Your task to perform on an android device: toggle improve location accuracy Image 0: 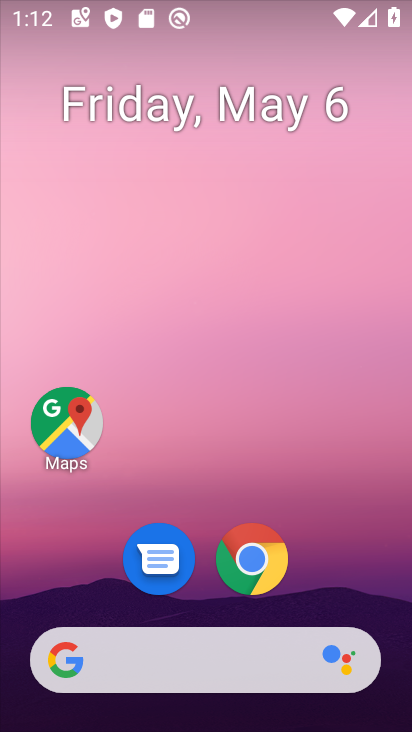
Step 0: drag from (200, 644) to (324, 123)
Your task to perform on an android device: toggle improve location accuracy Image 1: 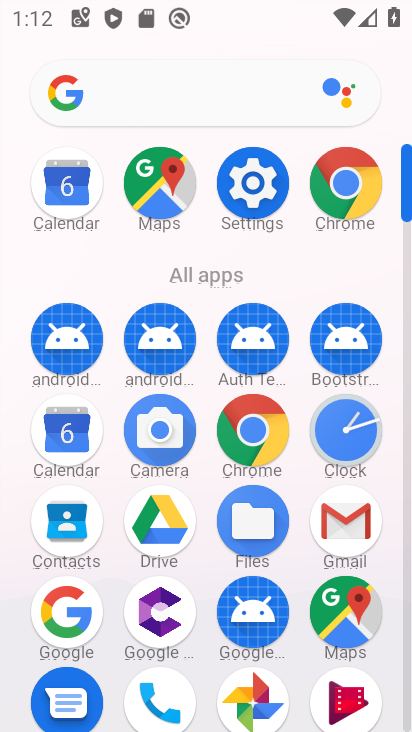
Step 1: click (256, 192)
Your task to perform on an android device: toggle improve location accuracy Image 2: 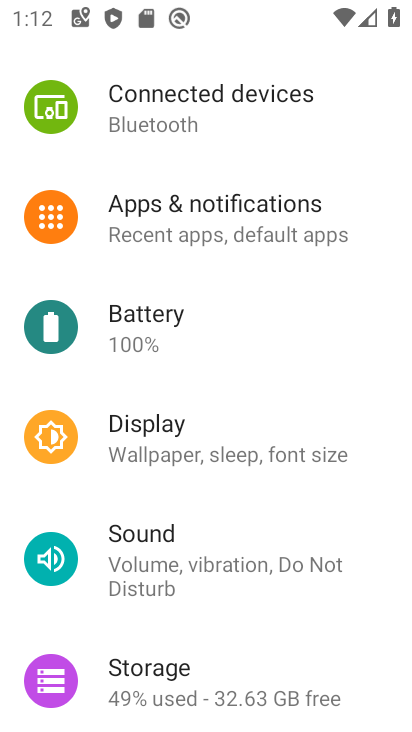
Step 2: drag from (211, 636) to (319, 204)
Your task to perform on an android device: toggle improve location accuracy Image 3: 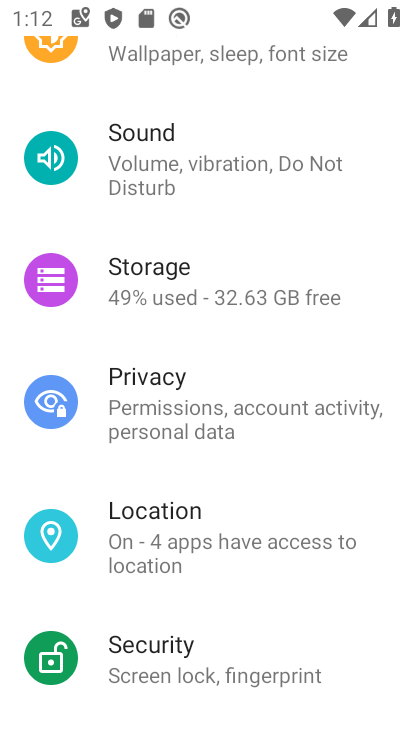
Step 3: click (181, 518)
Your task to perform on an android device: toggle improve location accuracy Image 4: 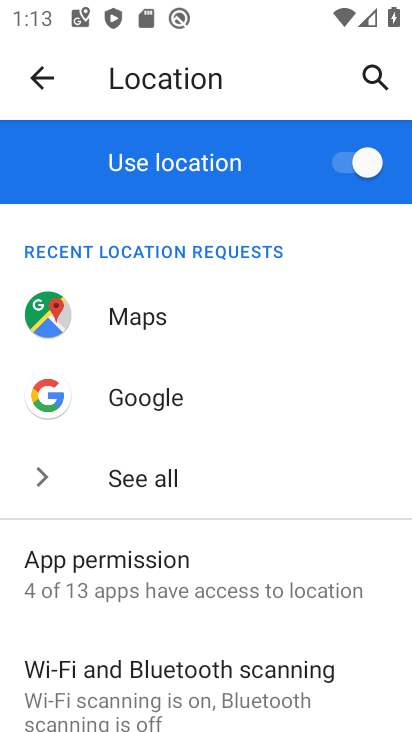
Step 4: drag from (204, 569) to (332, 223)
Your task to perform on an android device: toggle improve location accuracy Image 5: 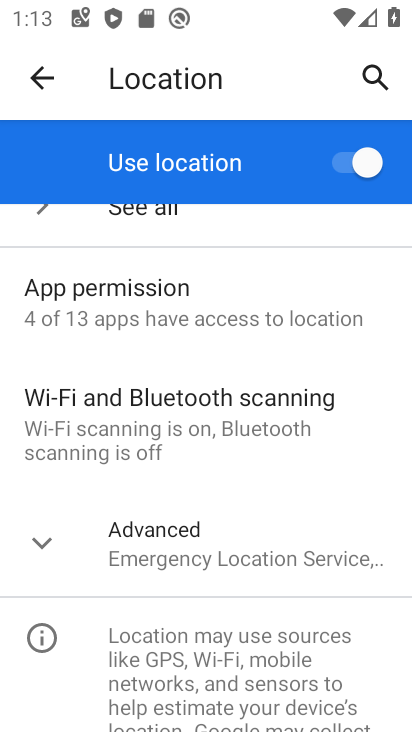
Step 5: click (177, 538)
Your task to perform on an android device: toggle improve location accuracy Image 6: 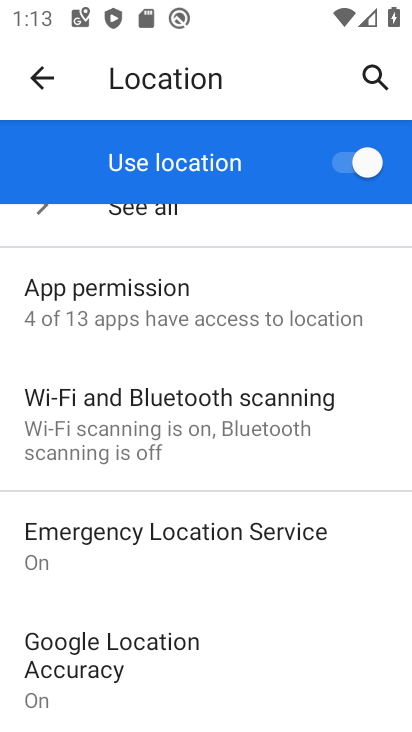
Step 6: drag from (230, 462) to (354, 191)
Your task to perform on an android device: toggle improve location accuracy Image 7: 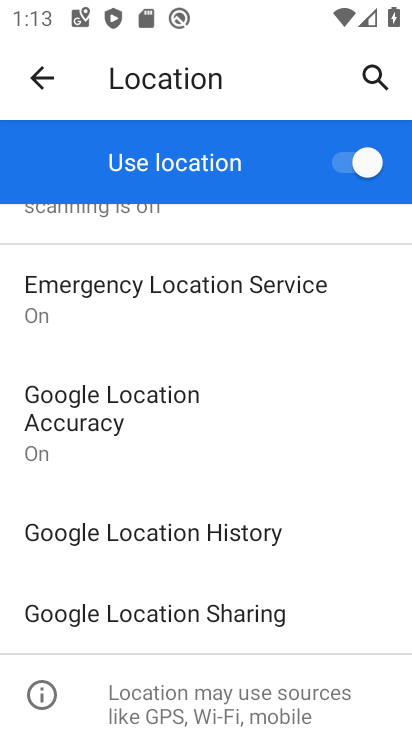
Step 7: click (90, 411)
Your task to perform on an android device: toggle improve location accuracy Image 8: 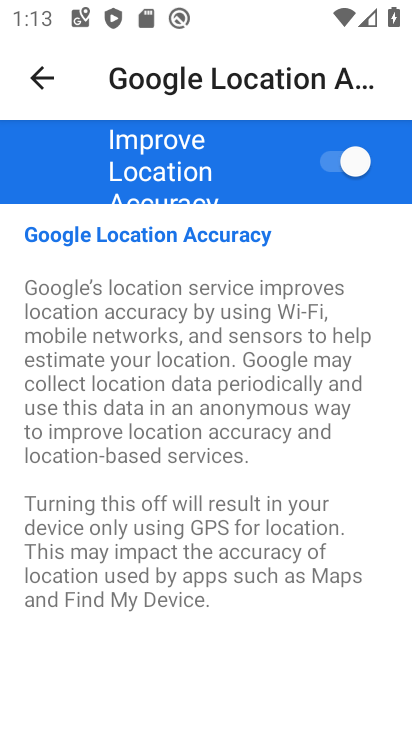
Step 8: click (336, 166)
Your task to perform on an android device: toggle improve location accuracy Image 9: 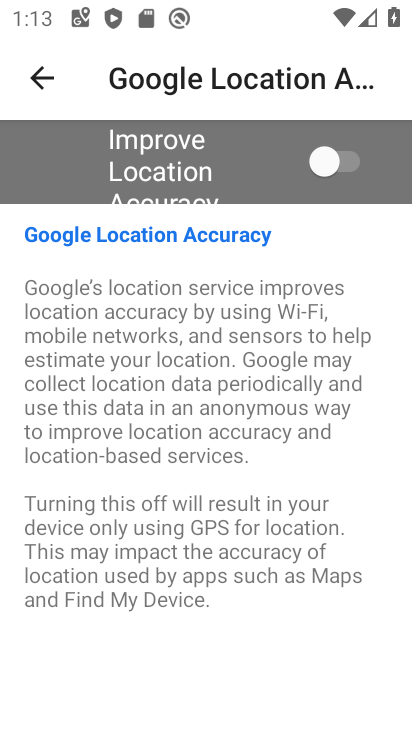
Step 9: task complete